Your task to perform on an android device: see tabs open on other devices in the chrome app Image 0: 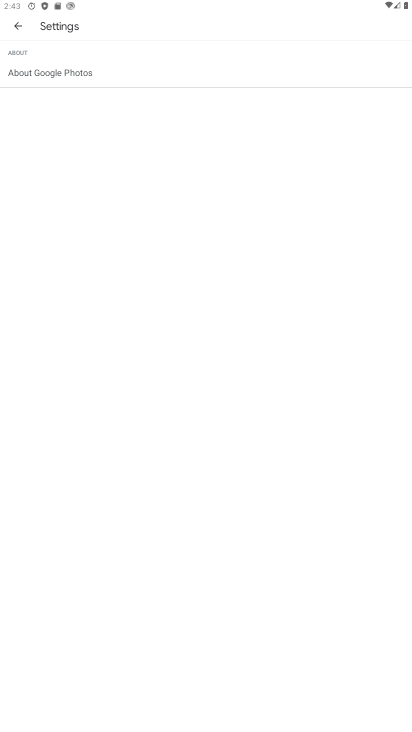
Step 0: press home button
Your task to perform on an android device: see tabs open on other devices in the chrome app Image 1: 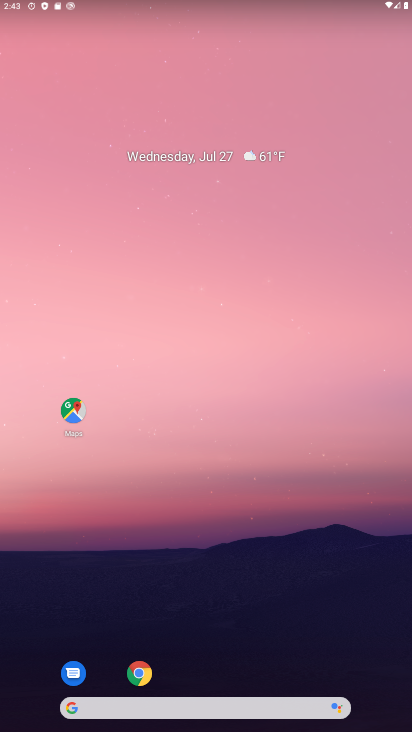
Step 1: click (132, 675)
Your task to perform on an android device: see tabs open on other devices in the chrome app Image 2: 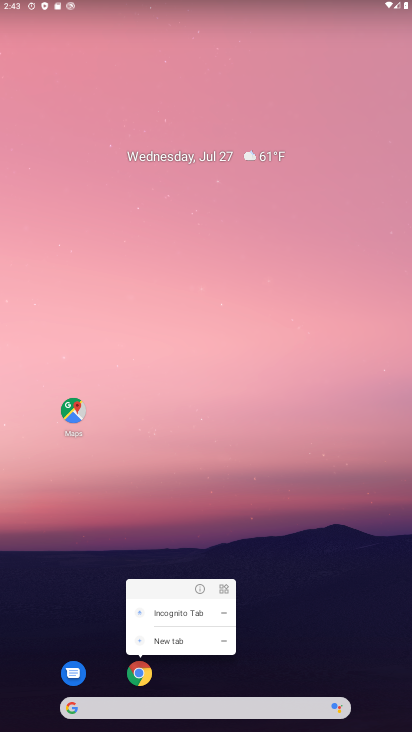
Step 2: click (146, 671)
Your task to perform on an android device: see tabs open on other devices in the chrome app Image 3: 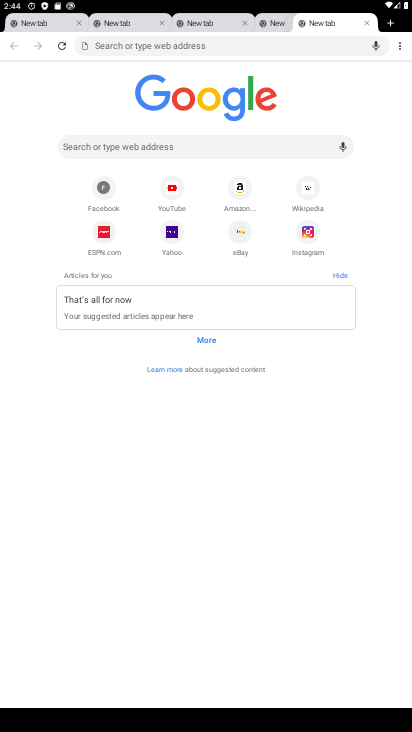
Step 3: task complete